Your task to perform on an android device: Open Android settings Image 0: 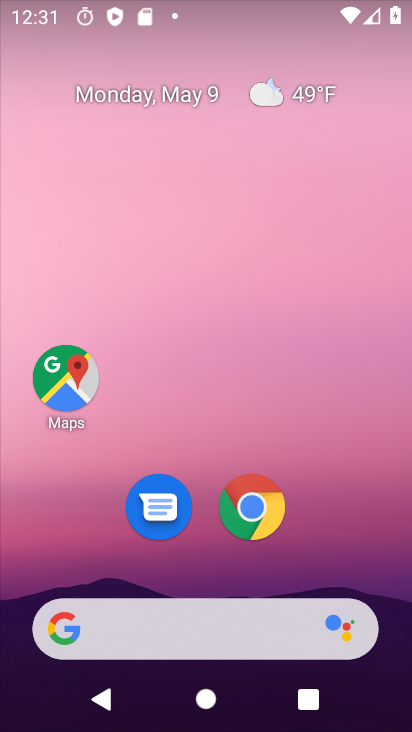
Step 0: drag from (230, 728) to (230, 110)
Your task to perform on an android device: Open Android settings Image 1: 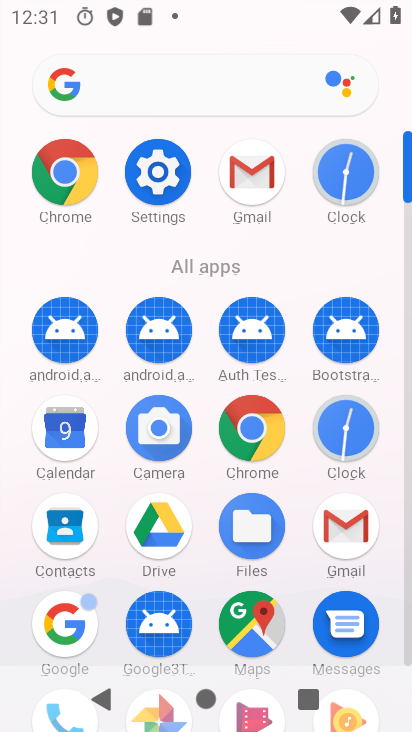
Step 1: click (144, 169)
Your task to perform on an android device: Open Android settings Image 2: 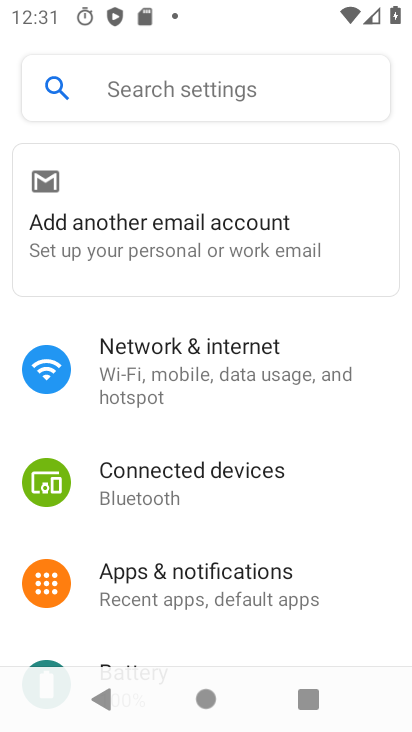
Step 2: task complete